Your task to perform on an android device: Is it going to rain this weekend? Image 0: 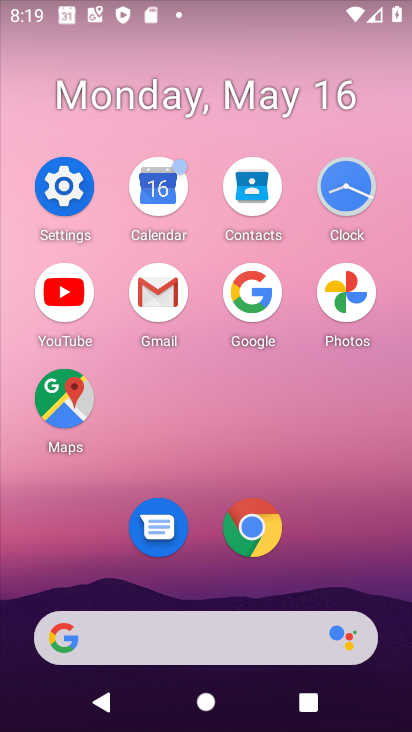
Step 0: click (251, 282)
Your task to perform on an android device: Is it going to rain this weekend? Image 1: 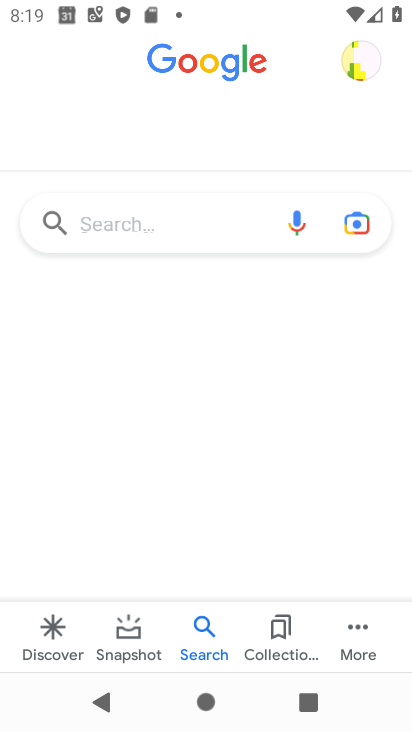
Step 1: click (199, 223)
Your task to perform on an android device: Is it going to rain this weekend? Image 2: 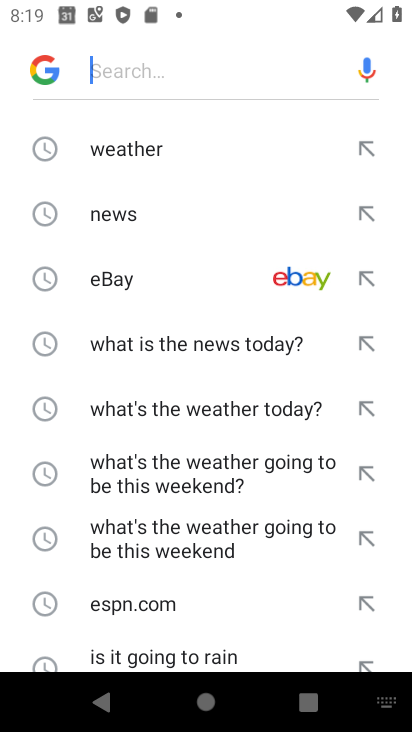
Step 2: task complete